Your task to perform on an android device: choose inbox layout in the gmail app Image 0: 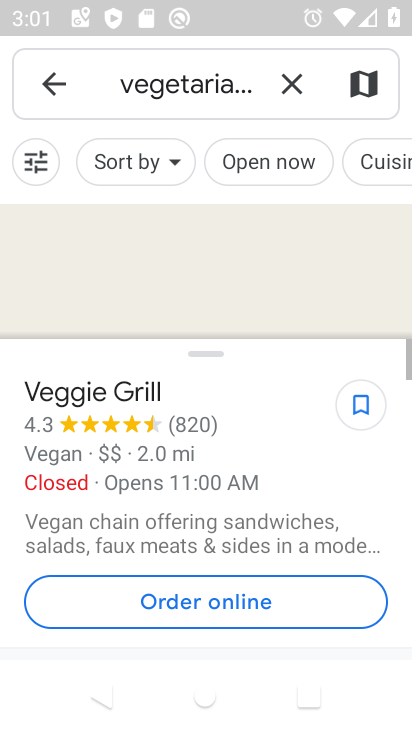
Step 0: press home button
Your task to perform on an android device: choose inbox layout in the gmail app Image 1: 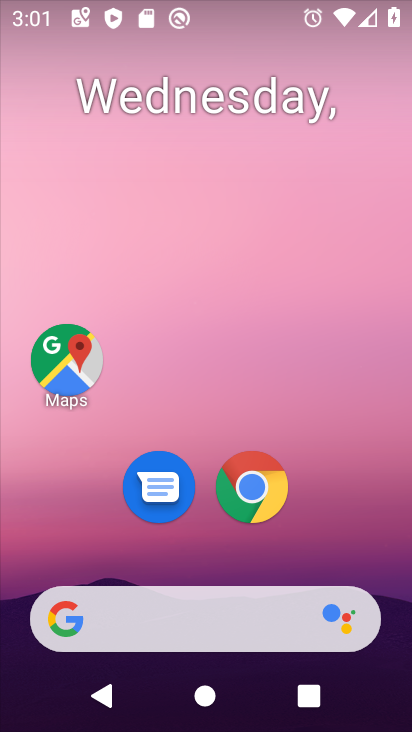
Step 1: drag from (351, 541) to (367, 164)
Your task to perform on an android device: choose inbox layout in the gmail app Image 2: 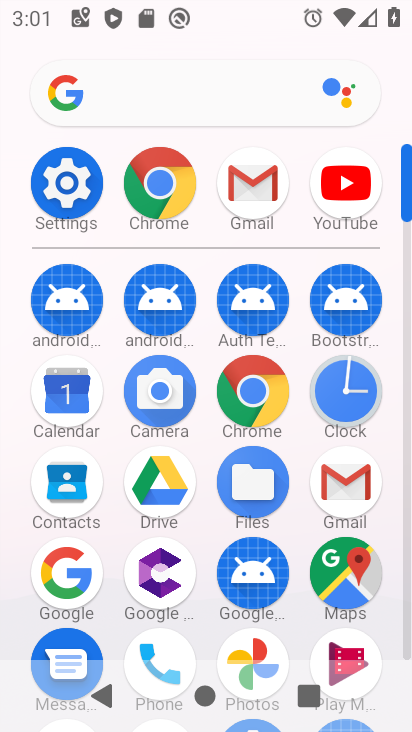
Step 2: click (350, 491)
Your task to perform on an android device: choose inbox layout in the gmail app Image 3: 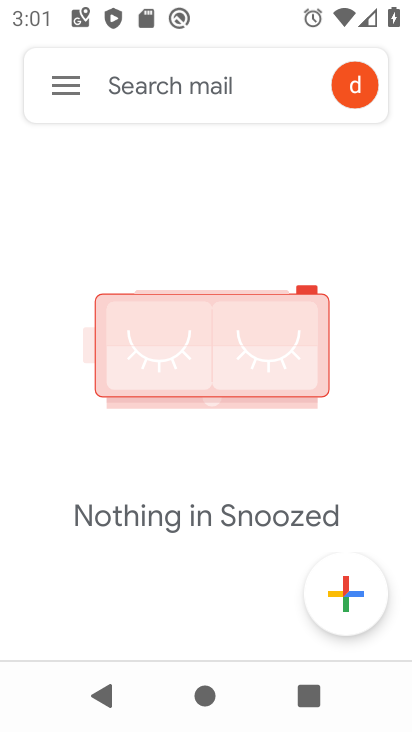
Step 3: click (68, 95)
Your task to perform on an android device: choose inbox layout in the gmail app Image 4: 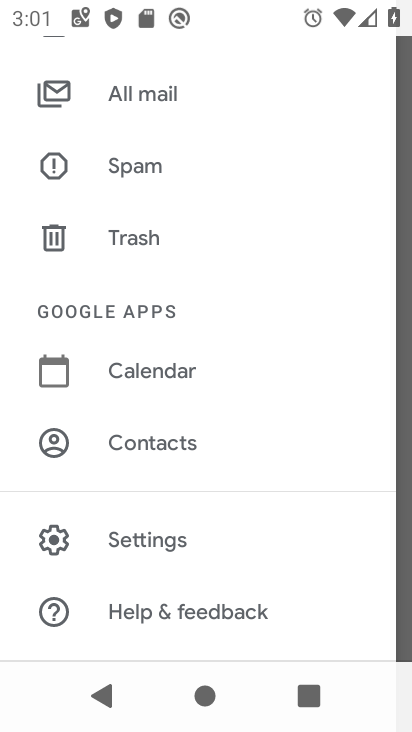
Step 4: click (184, 555)
Your task to perform on an android device: choose inbox layout in the gmail app Image 5: 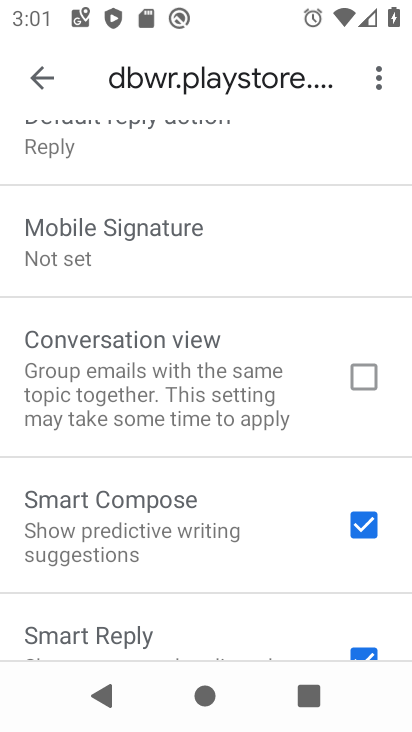
Step 5: drag from (279, 271) to (301, 383)
Your task to perform on an android device: choose inbox layout in the gmail app Image 6: 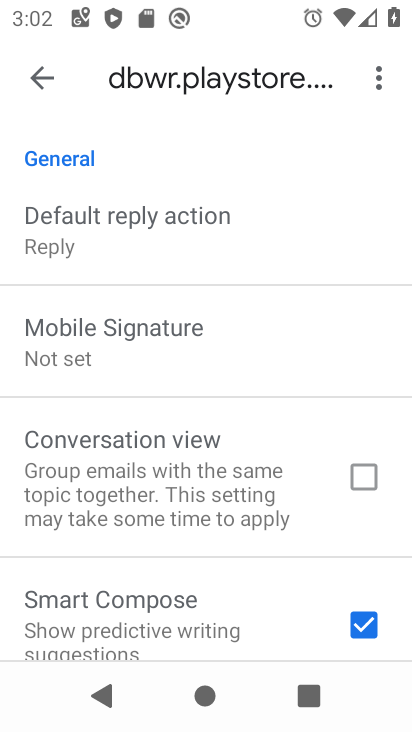
Step 6: drag from (292, 237) to (289, 352)
Your task to perform on an android device: choose inbox layout in the gmail app Image 7: 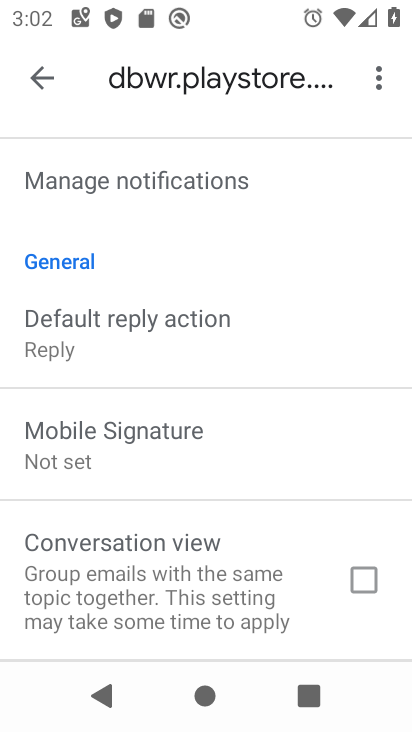
Step 7: drag from (267, 225) to (263, 342)
Your task to perform on an android device: choose inbox layout in the gmail app Image 8: 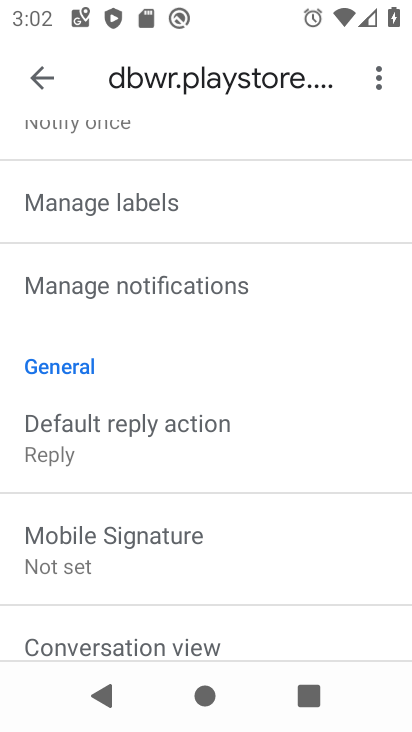
Step 8: drag from (259, 204) to (259, 326)
Your task to perform on an android device: choose inbox layout in the gmail app Image 9: 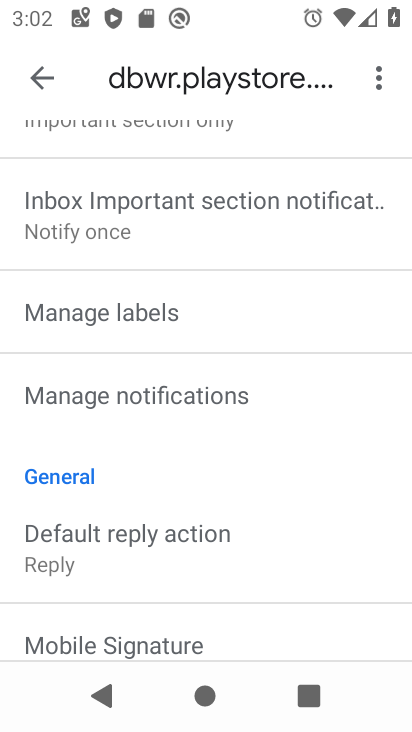
Step 9: drag from (268, 175) to (261, 294)
Your task to perform on an android device: choose inbox layout in the gmail app Image 10: 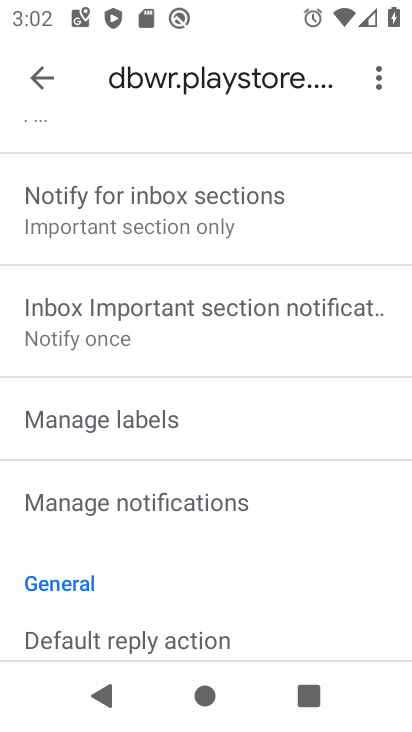
Step 10: drag from (268, 174) to (273, 301)
Your task to perform on an android device: choose inbox layout in the gmail app Image 11: 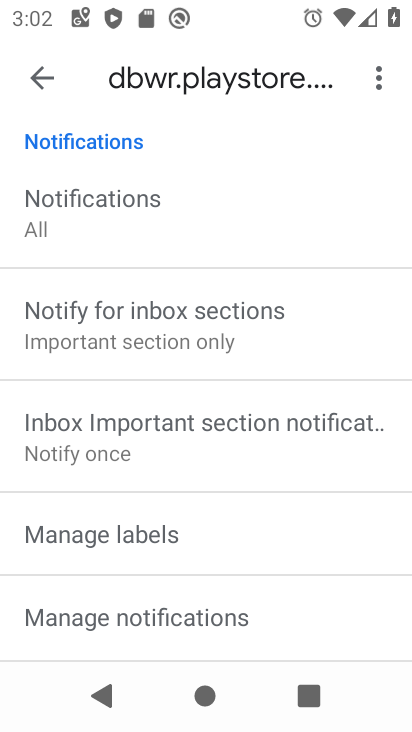
Step 11: drag from (263, 192) to (258, 305)
Your task to perform on an android device: choose inbox layout in the gmail app Image 12: 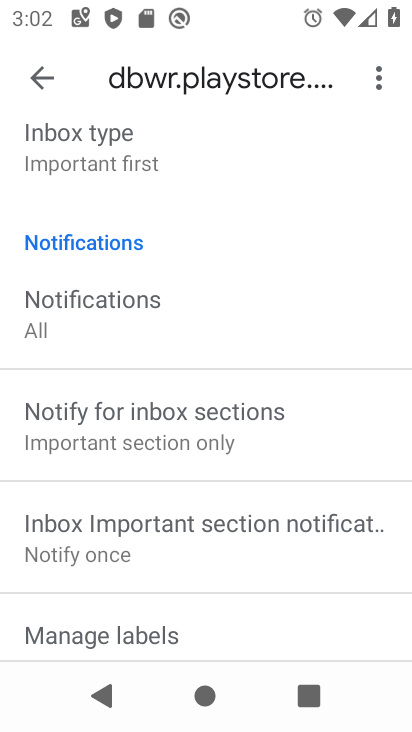
Step 12: drag from (255, 180) to (243, 435)
Your task to perform on an android device: choose inbox layout in the gmail app Image 13: 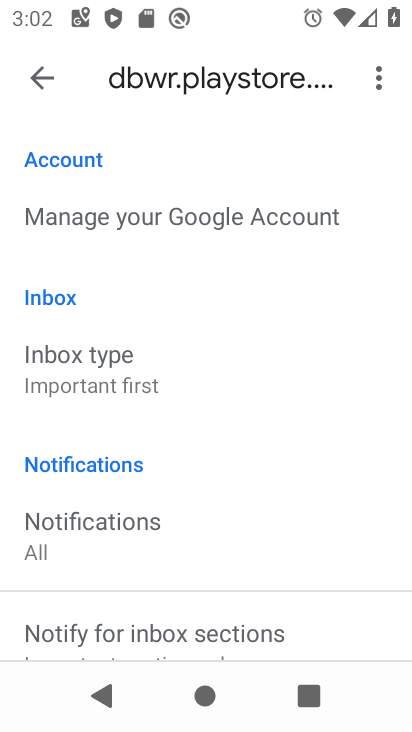
Step 13: drag from (234, 270) to (217, 417)
Your task to perform on an android device: choose inbox layout in the gmail app Image 14: 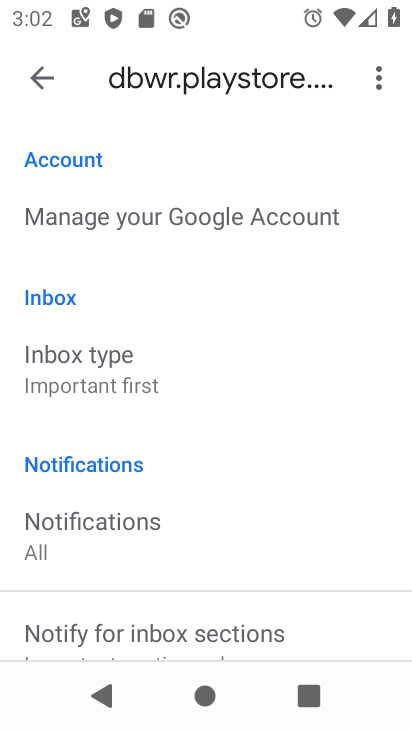
Step 14: click (136, 394)
Your task to perform on an android device: choose inbox layout in the gmail app Image 15: 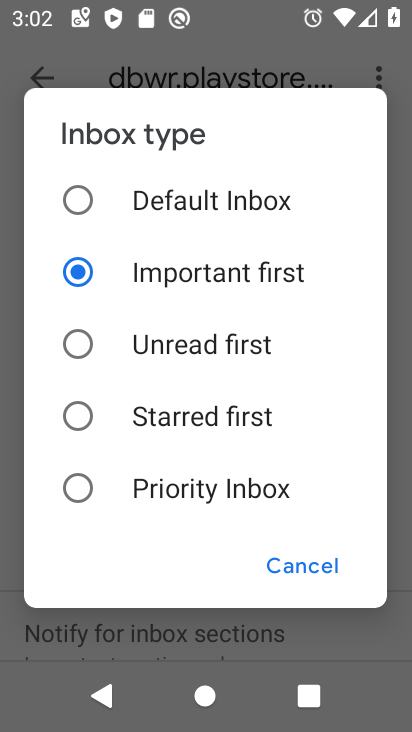
Step 15: click (198, 347)
Your task to perform on an android device: choose inbox layout in the gmail app Image 16: 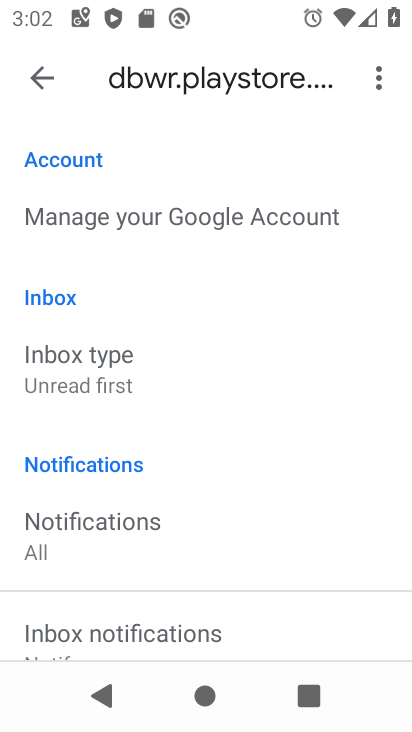
Step 16: task complete